Your task to perform on an android device: change text size in settings app Image 0: 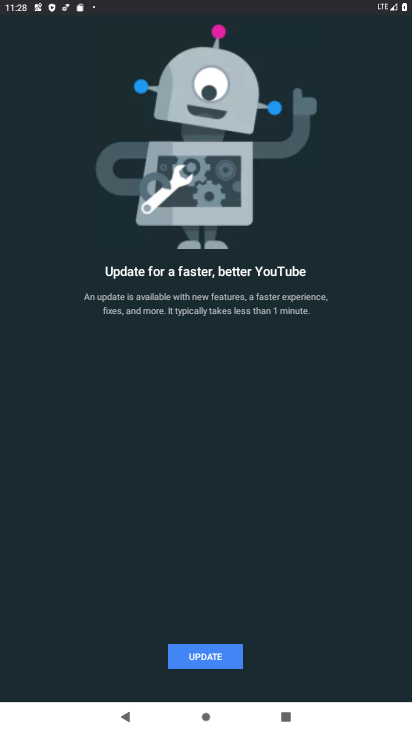
Step 0: press home button
Your task to perform on an android device: change text size in settings app Image 1: 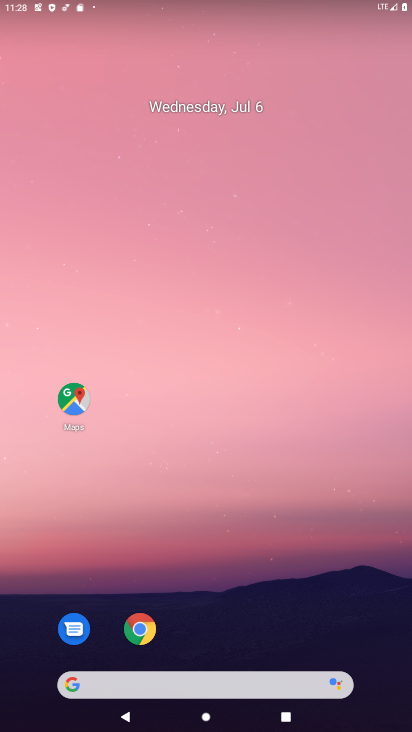
Step 1: drag from (248, 273) to (248, 148)
Your task to perform on an android device: change text size in settings app Image 2: 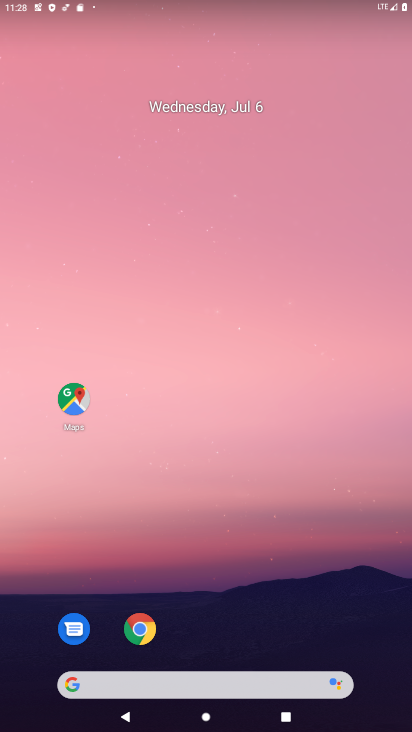
Step 2: drag from (274, 616) to (283, 126)
Your task to perform on an android device: change text size in settings app Image 3: 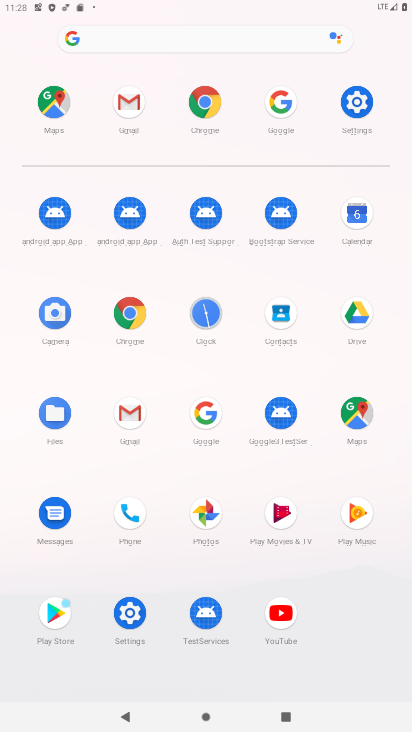
Step 3: click (350, 110)
Your task to perform on an android device: change text size in settings app Image 4: 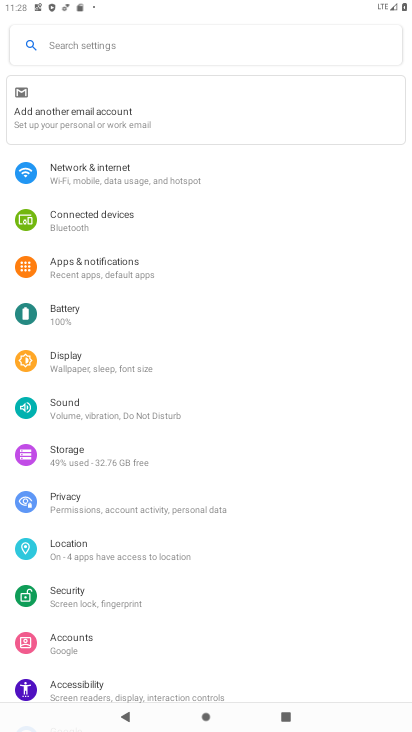
Step 4: click (123, 353)
Your task to perform on an android device: change text size in settings app Image 5: 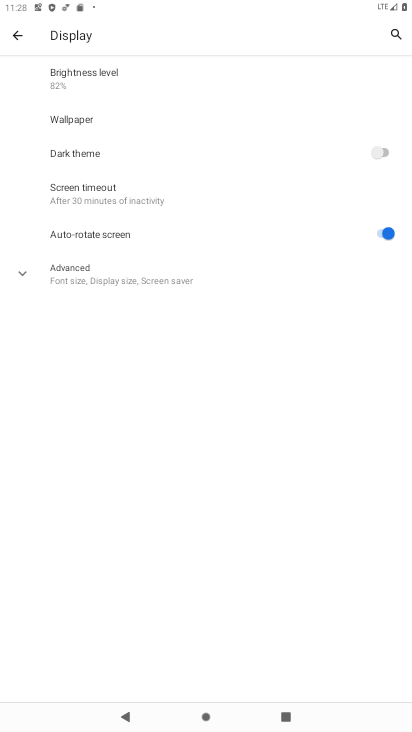
Step 5: click (91, 272)
Your task to perform on an android device: change text size in settings app Image 6: 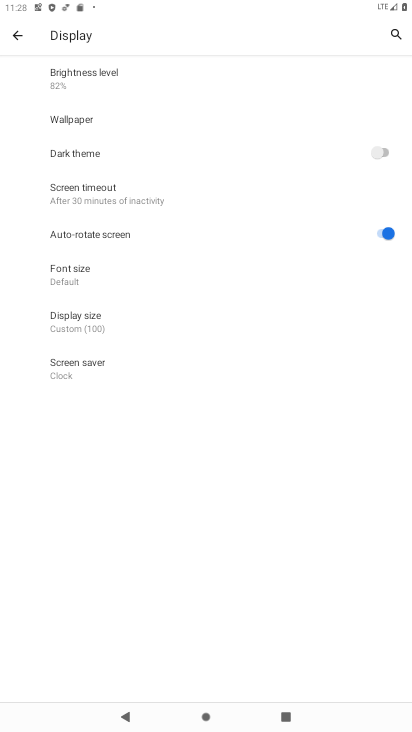
Step 6: click (91, 272)
Your task to perform on an android device: change text size in settings app Image 7: 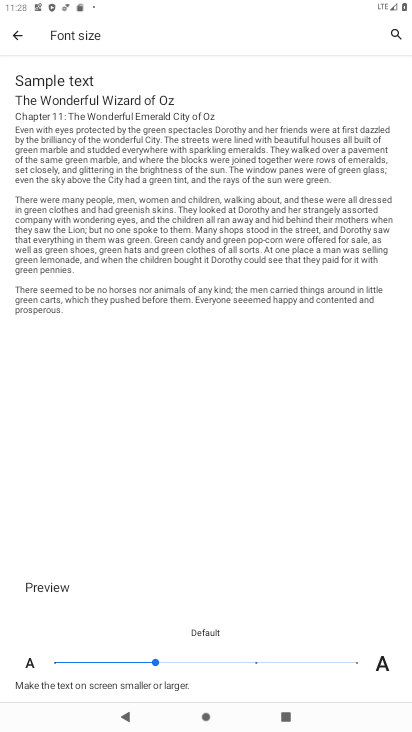
Step 7: click (201, 662)
Your task to perform on an android device: change text size in settings app Image 8: 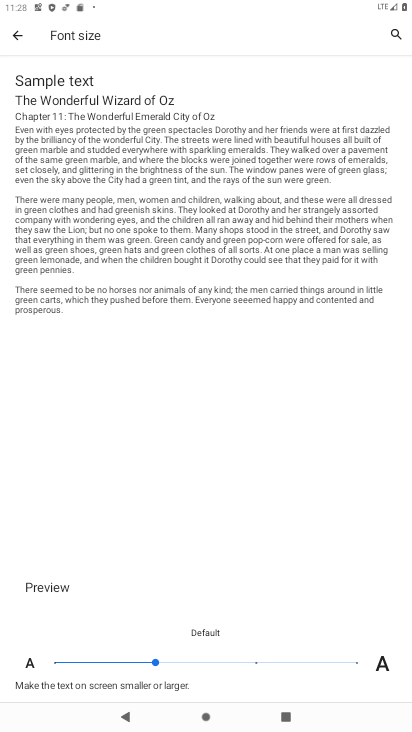
Step 8: click (236, 658)
Your task to perform on an android device: change text size in settings app Image 9: 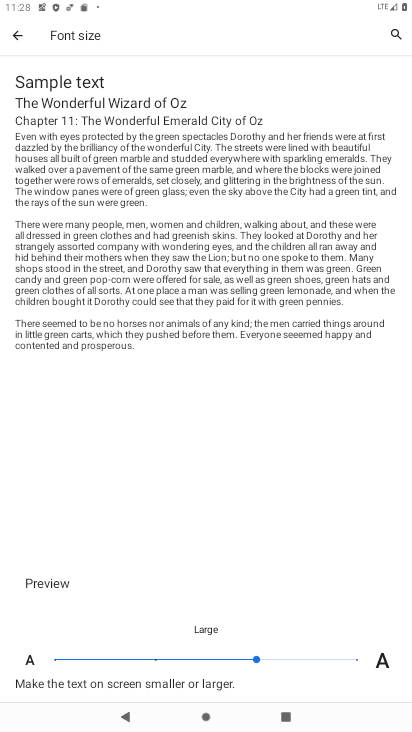
Step 9: task complete